Your task to perform on an android device: set an alarm Image 0: 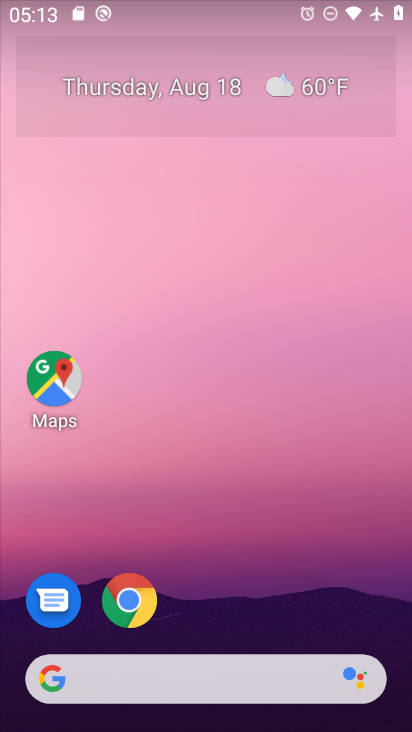
Step 0: drag from (224, 207) to (226, 132)
Your task to perform on an android device: set an alarm Image 1: 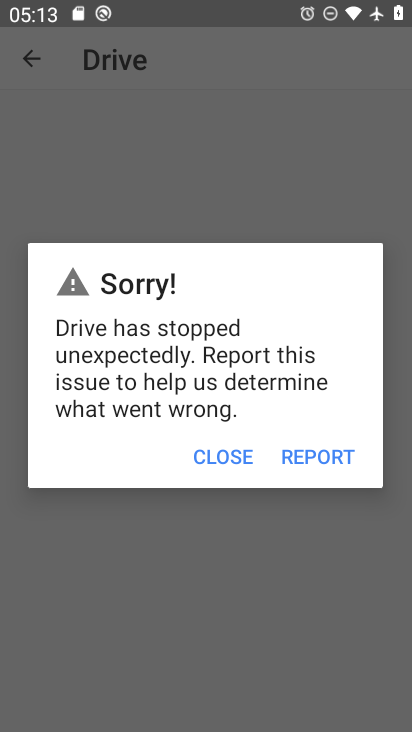
Step 1: press home button
Your task to perform on an android device: set an alarm Image 2: 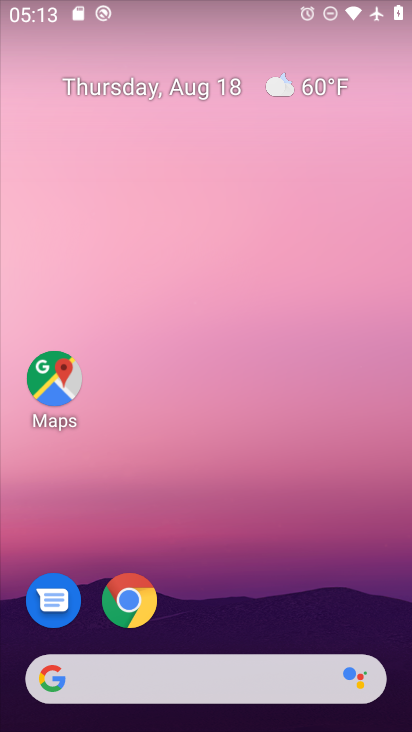
Step 2: drag from (229, 639) to (260, 74)
Your task to perform on an android device: set an alarm Image 3: 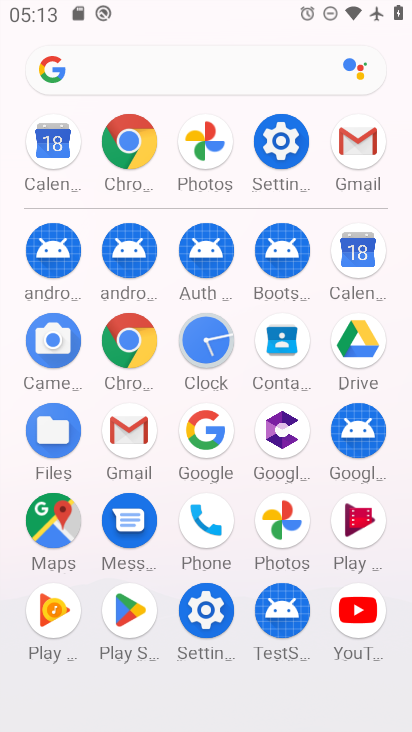
Step 3: click (200, 343)
Your task to perform on an android device: set an alarm Image 4: 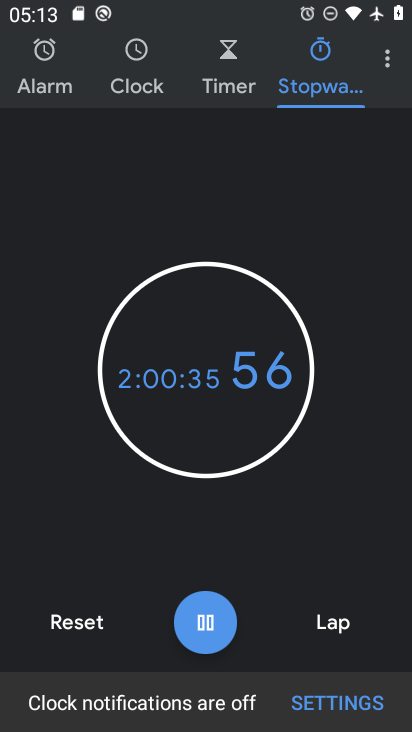
Step 4: click (44, 80)
Your task to perform on an android device: set an alarm Image 5: 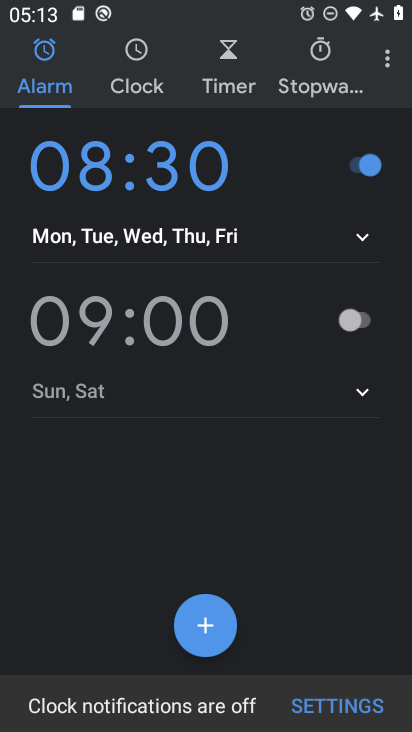
Step 5: click (347, 318)
Your task to perform on an android device: set an alarm Image 6: 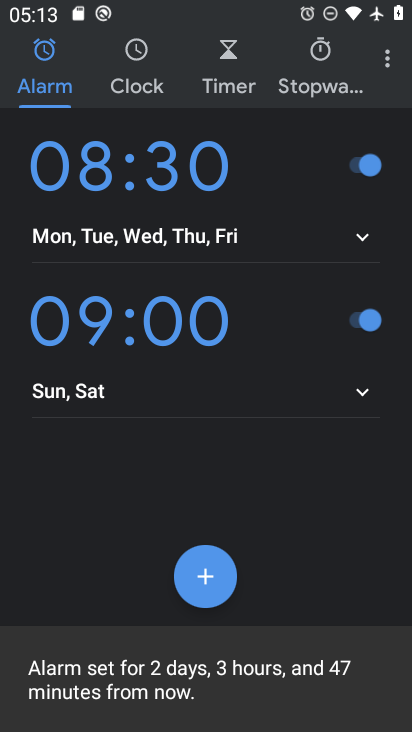
Step 6: task complete